Your task to perform on an android device: set an alarm Image 0: 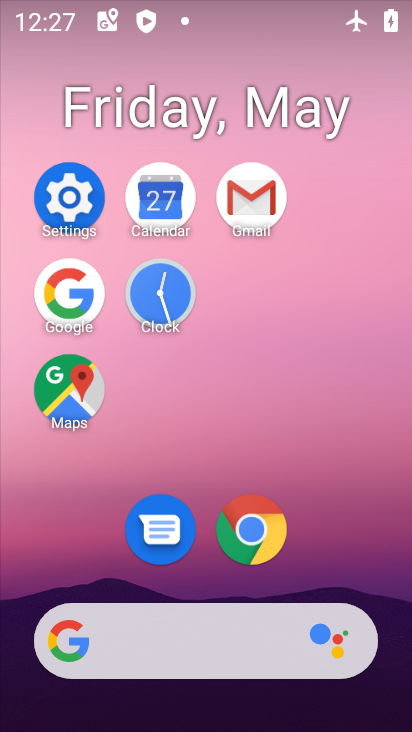
Step 0: click (158, 305)
Your task to perform on an android device: set an alarm Image 1: 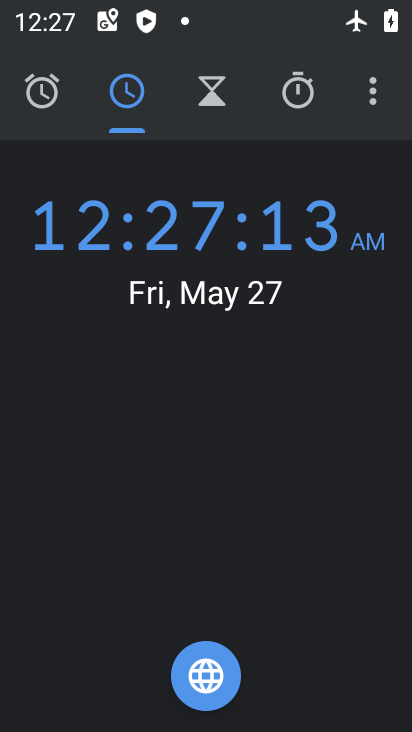
Step 1: click (64, 87)
Your task to perform on an android device: set an alarm Image 2: 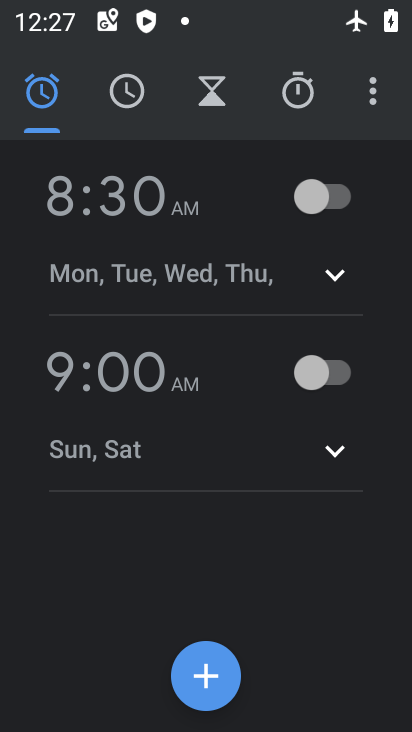
Step 2: click (310, 221)
Your task to perform on an android device: set an alarm Image 3: 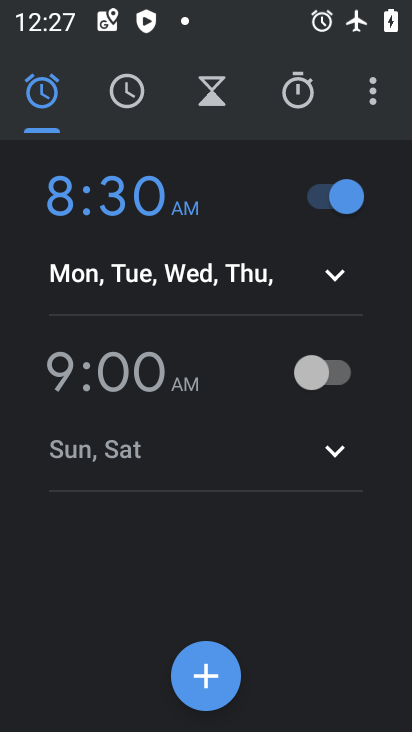
Step 3: task complete